Your task to perform on an android device: turn off location Image 0: 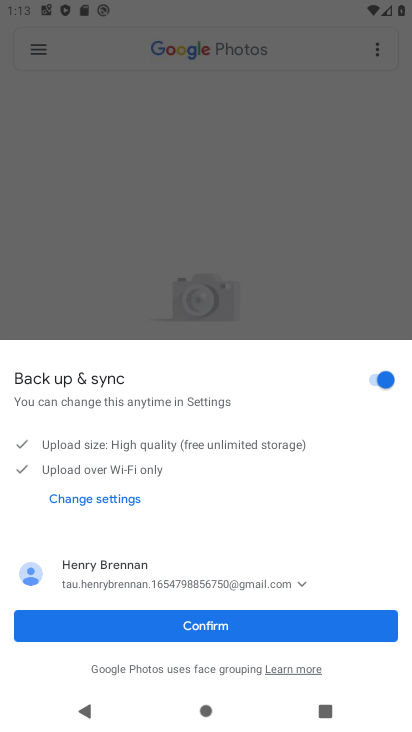
Step 0: press home button
Your task to perform on an android device: turn off location Image 1: 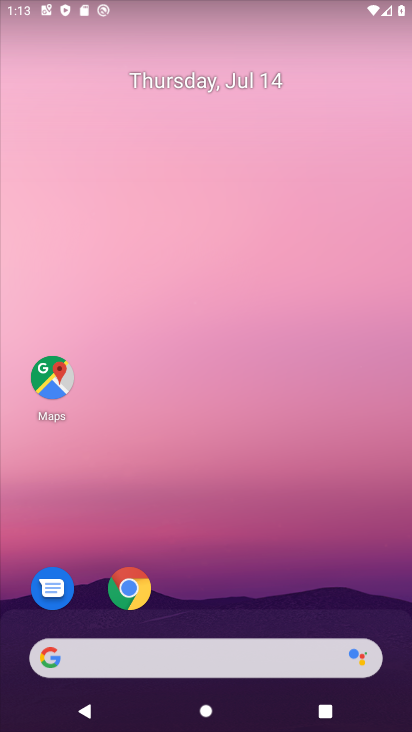
Step 1: drag from (216, 562) to (259, 2)
Your task to perform on an android device: turn off location Image 2: 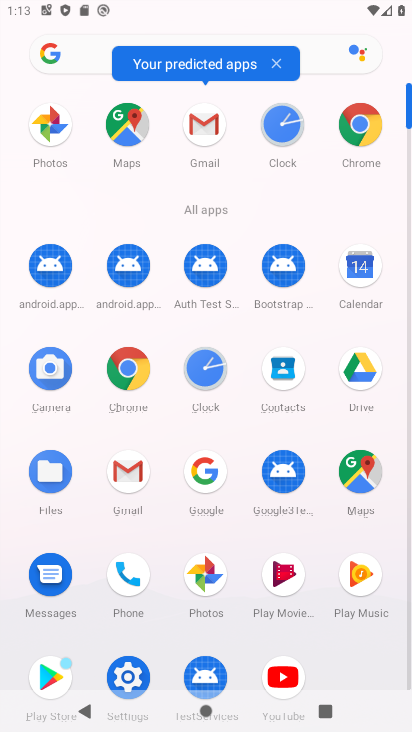
Step 2: click (118, 665)
Your task to perform on an android device: turn off location Image 3: 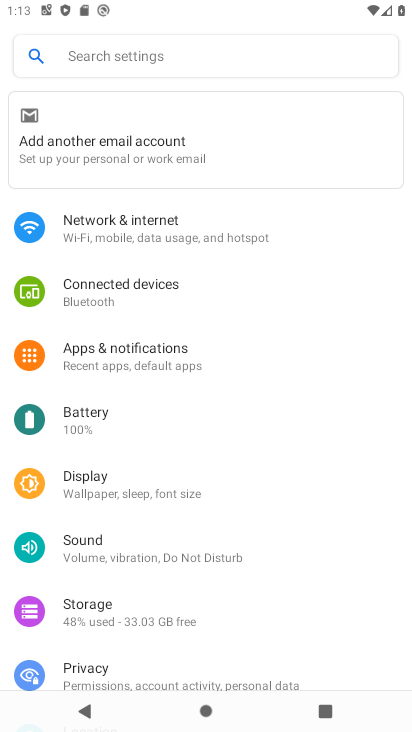
Step 3: drag from (146, 651) to (250, 91)
Your task to perform on an android device: turn off location Image 4: 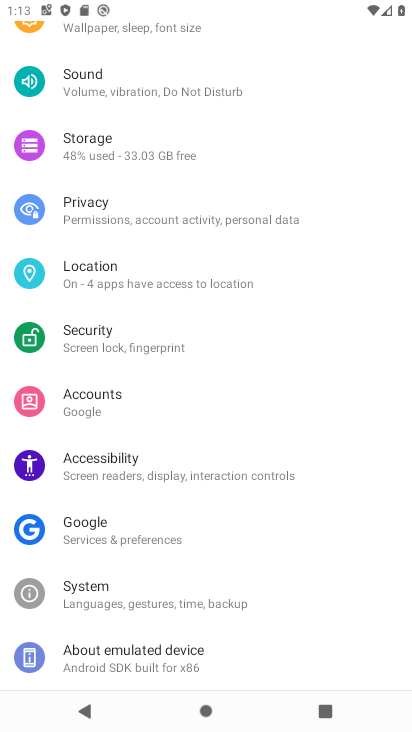
Step 4: click (118, 269)
Your task to perform on an android device: turn off location Image 5: 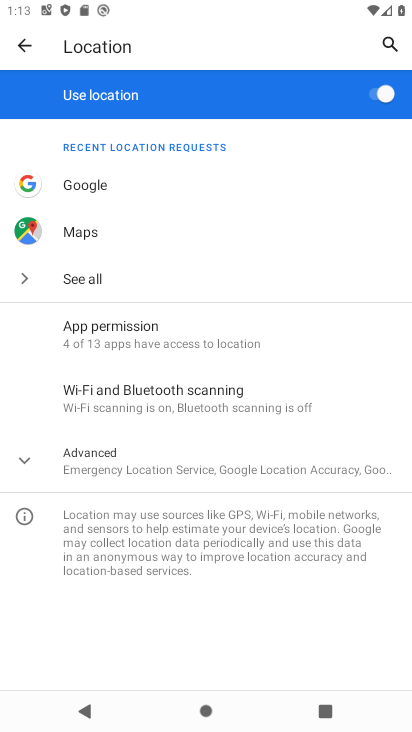
Step 5: click (378, 99)
Your task to perform on an android device: turn off location Image 6: 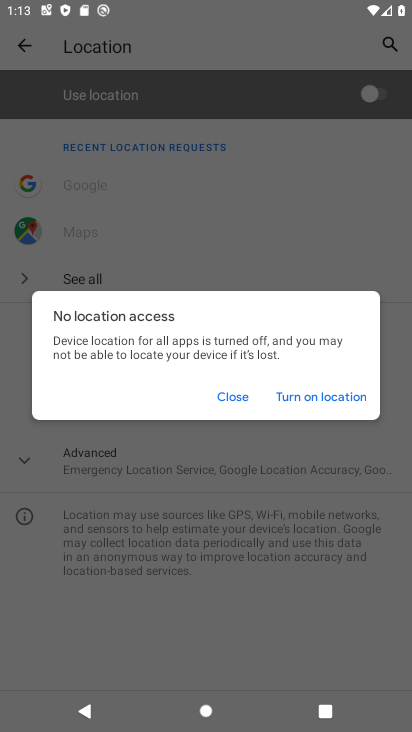
Step 6: click (220, 393)
Your task to perform on an android device: turn off location Image 7: 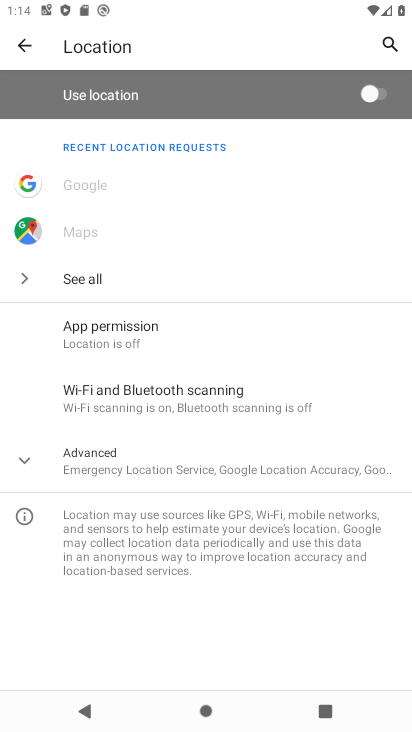
Step 7: task complete